Your task to perform on an android device: search for starred emails in the gmail app Image 0: 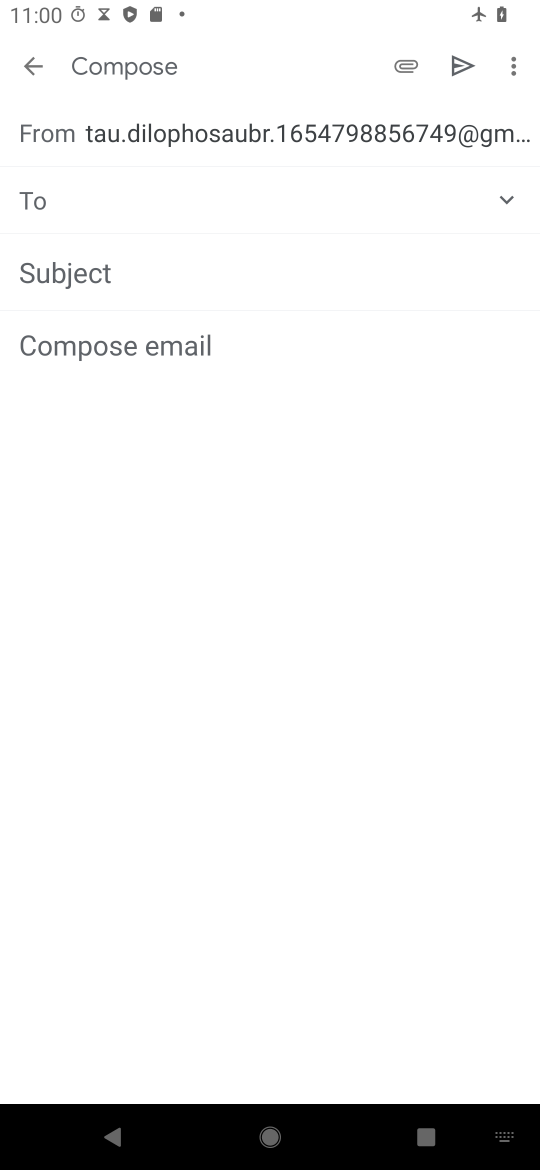
Step 0: press home button
Your task to perform on an android device: search for starred emails in the gmail app Image 1: 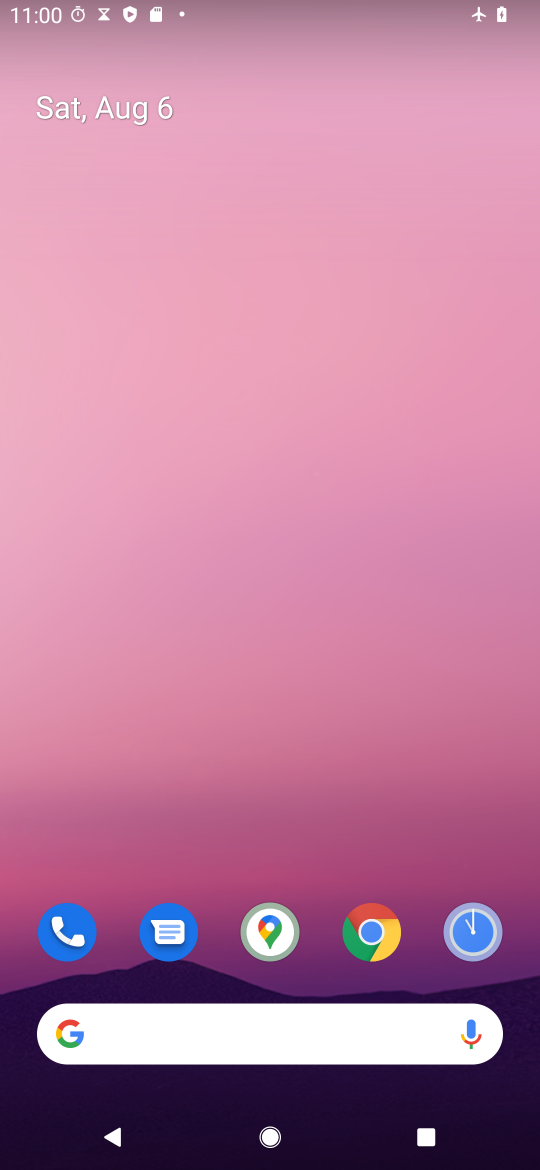
Step 1: drag from (278, 276) to (237, 114)
Your task to perform on an android device: search for starred emails in the gmail app Image 2: 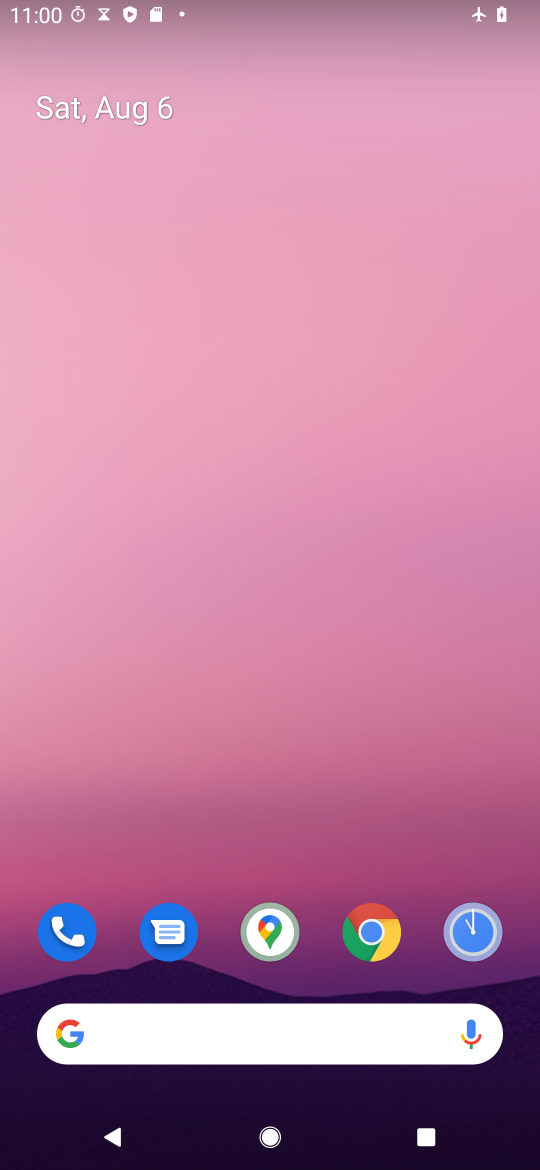
Step 2: drag from (195, 1036) to (369, 146)
Your task to perform on an android device: search for starred emails in the gmail app Image 3: 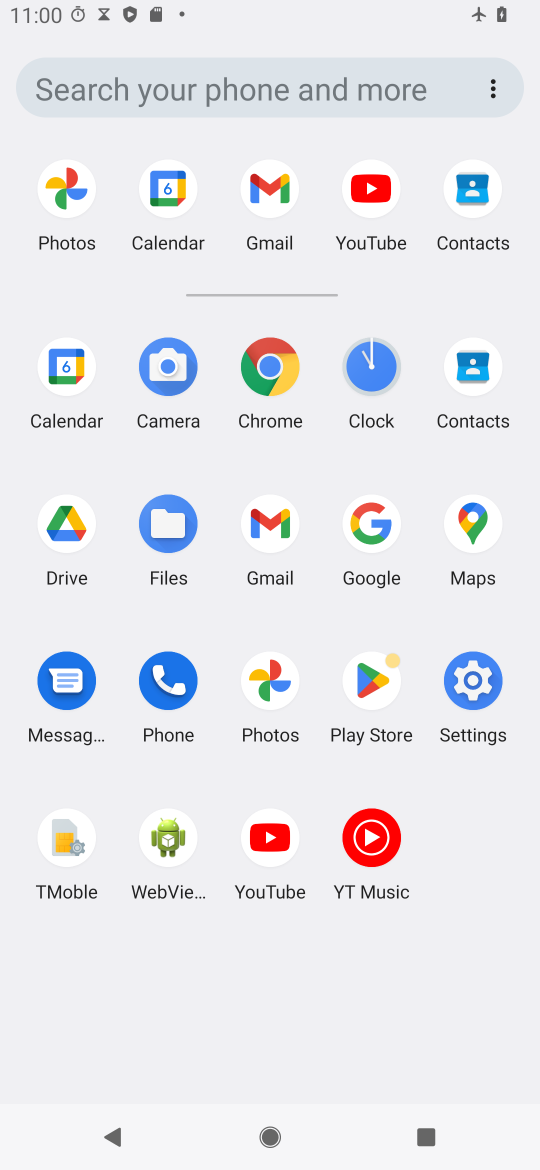
Step 3: click (271, 193)
Your task to perform on an android device: search for starred emails in the gmail app Image 4: 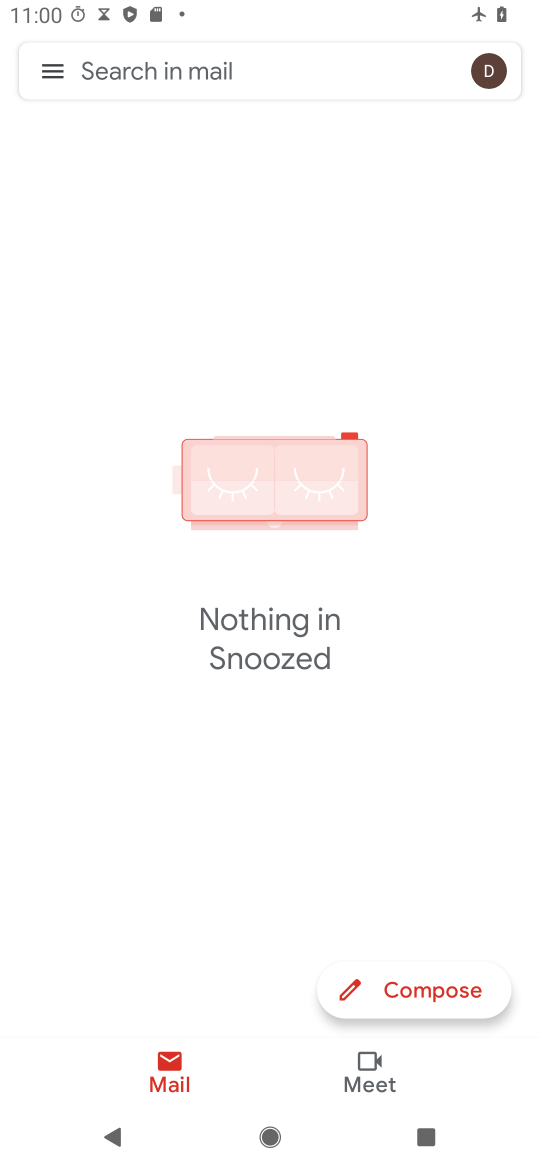
Step 4: click (52, 73)
Your task to perform on an android device: search for starred emails in the gmail app Image 5: 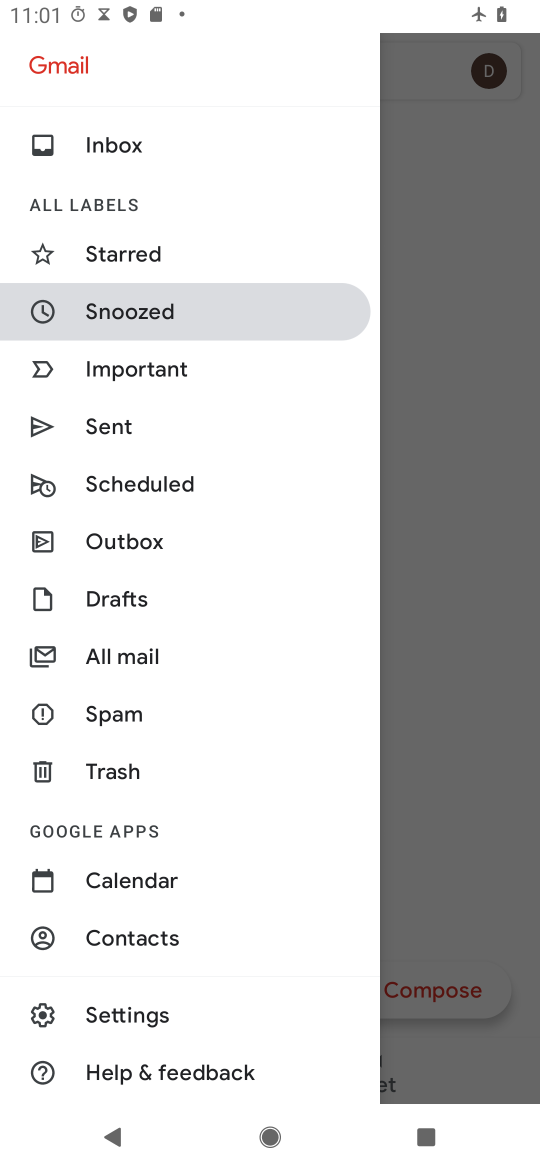
Step 5: click (125, 245)
Your task to perform on an android device: search for starred emails in the gmail app Image 6: 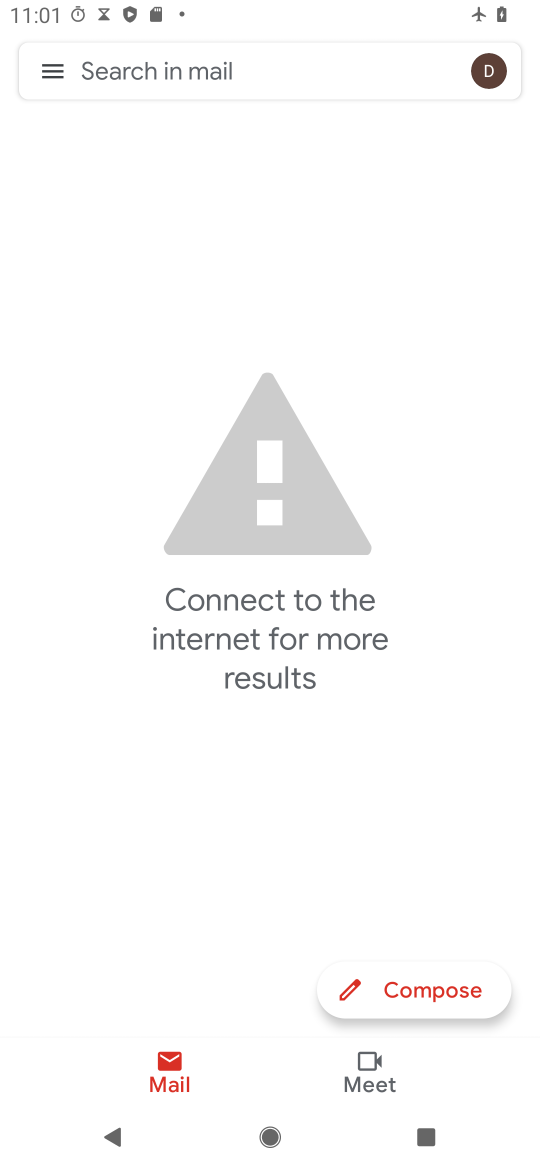
Step 6: click (57, 73)
Your task to perform on an android device: search for starred emails in the gmail app Image 7: 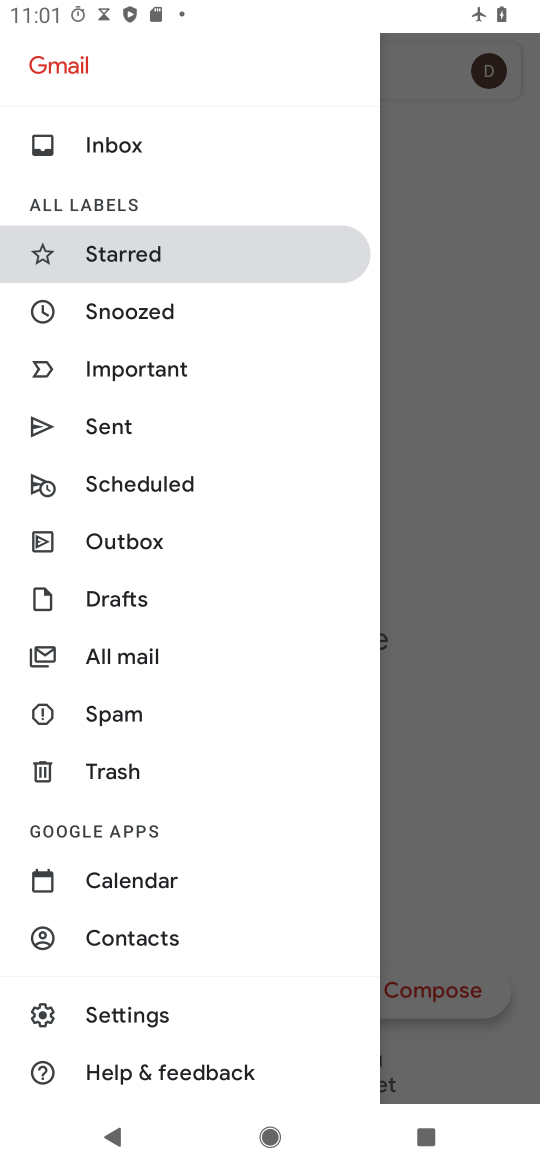
Step 7: task complete